Your task to perform on an android device: Play the new Ed Sheeran video on YouTube Image 0: 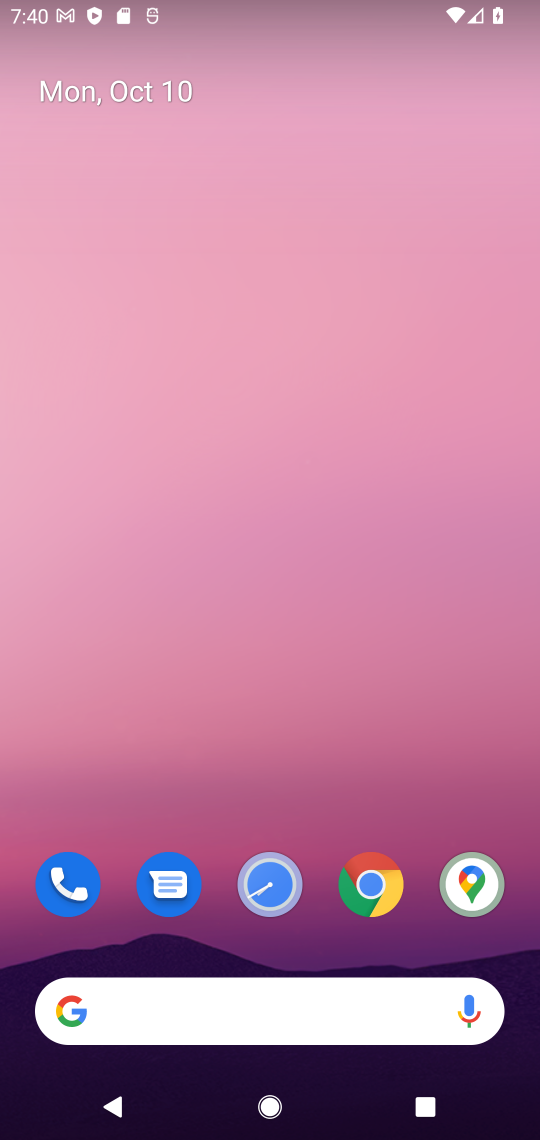
Step 0: drag from (364, 831) to (358, 9)
Your task to perform on an android device: Play the new Ed Sheeran video on YouTube Image 1: 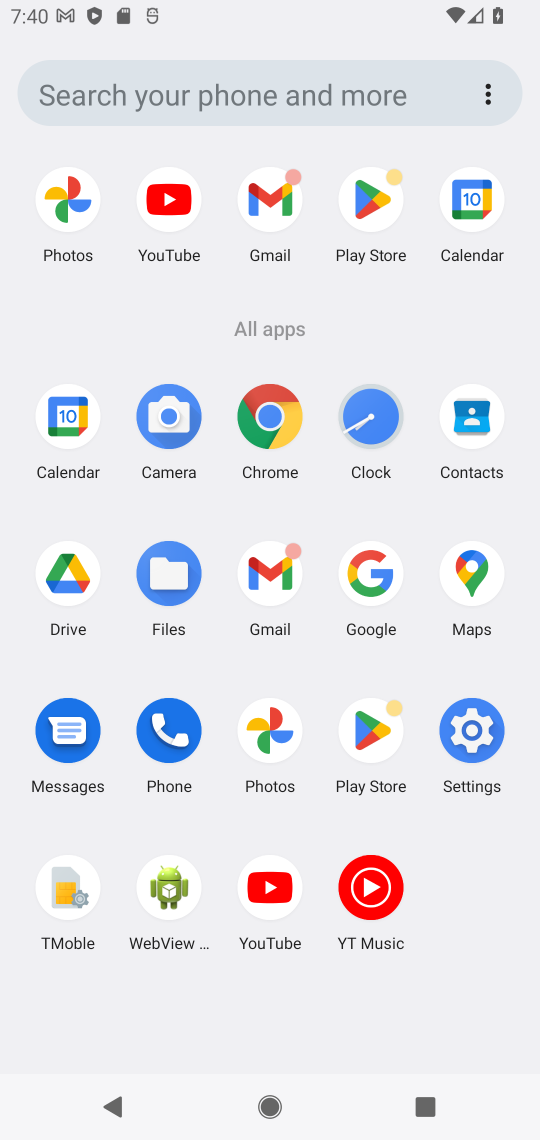
Step 1: click (280, 876)
Your task to perform on an android device: Play the new Ed Sheeran video on YouTube Image 2: 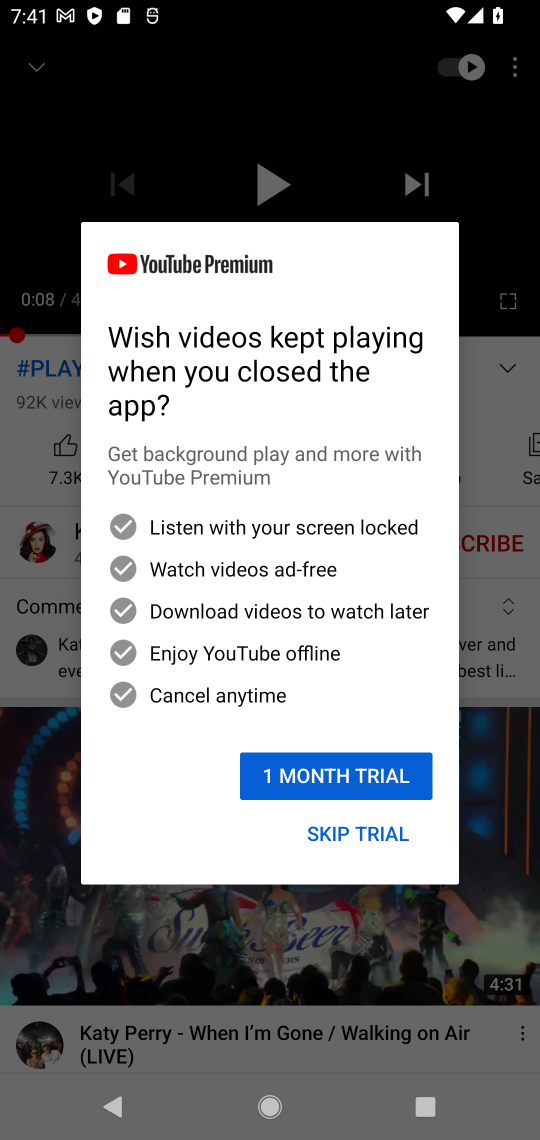
Step 2: click (378, 838)
Your task to perform on an android device: Play the new Ed Sheeran video on YouTube Image 3: 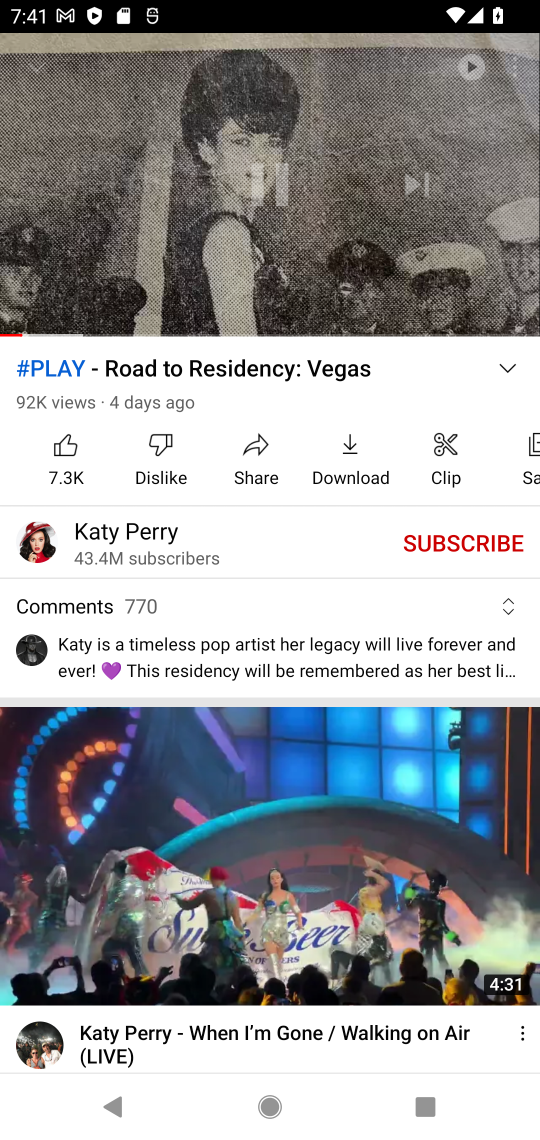
Step 3: drag from (347, 195) to (370, 788)
Your task to perform on an android device: Play the new Ed Sheeran video on YouTube Image 4: 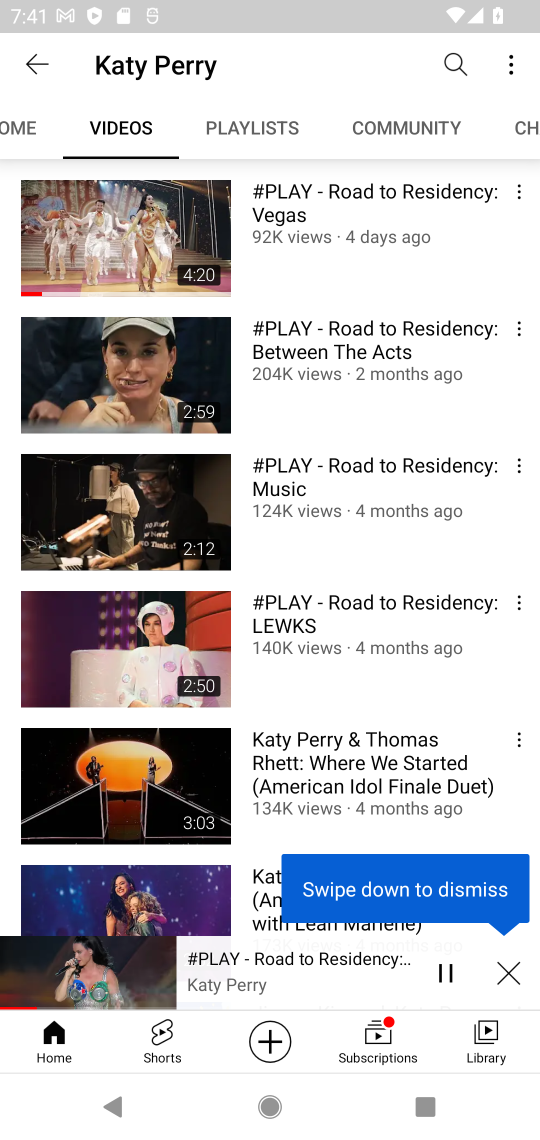
Step 4: click (513, 963)
Your task to perform on an android device: Play the new Ed Sheeran video on YouTube Image 5: 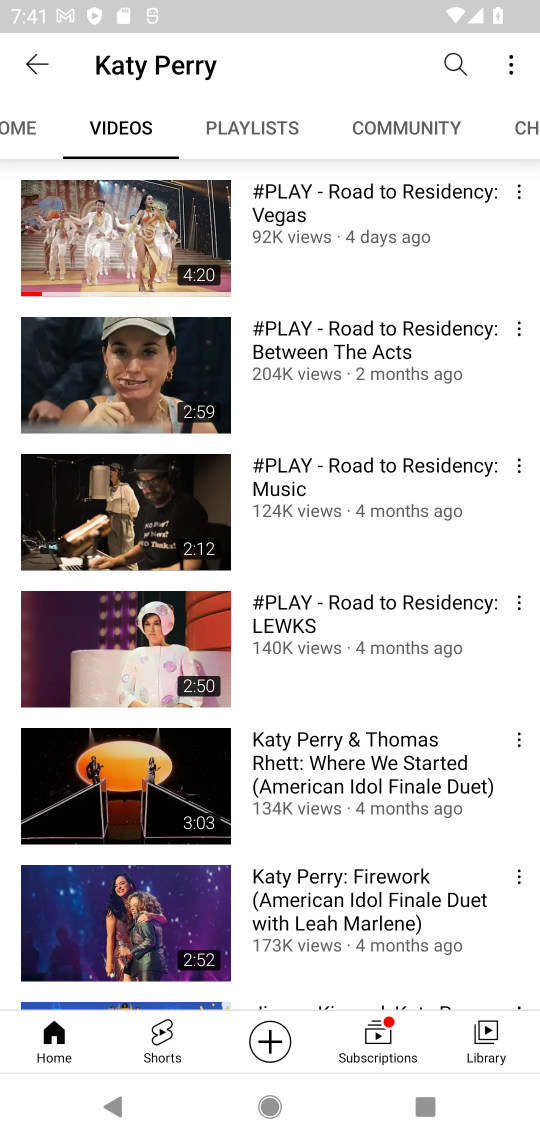
Step 5: click (451, 64)
Your task to perform on an android device: Play the new Ed Sheeran video on YouTube Image 6: 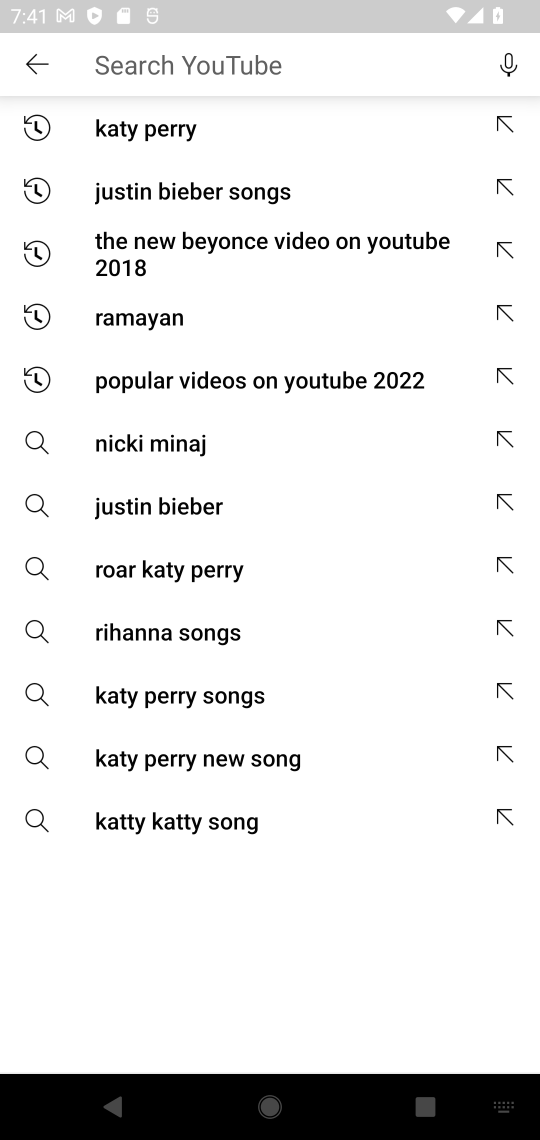
Step 6: type "ed sheeran"
Your task to perform on an android device: Play the new Ed Sheeran video on YouTube Image 7: 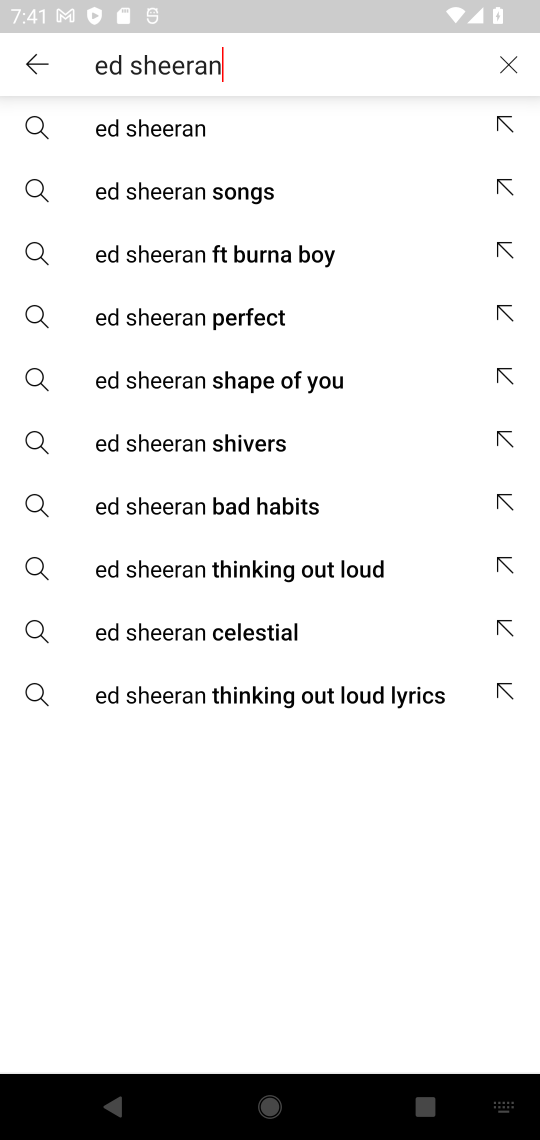
Step 7: click (200, 118)
Your task to perform on an android device: Play the new Ed Sheeran video on YouTube Image 8: 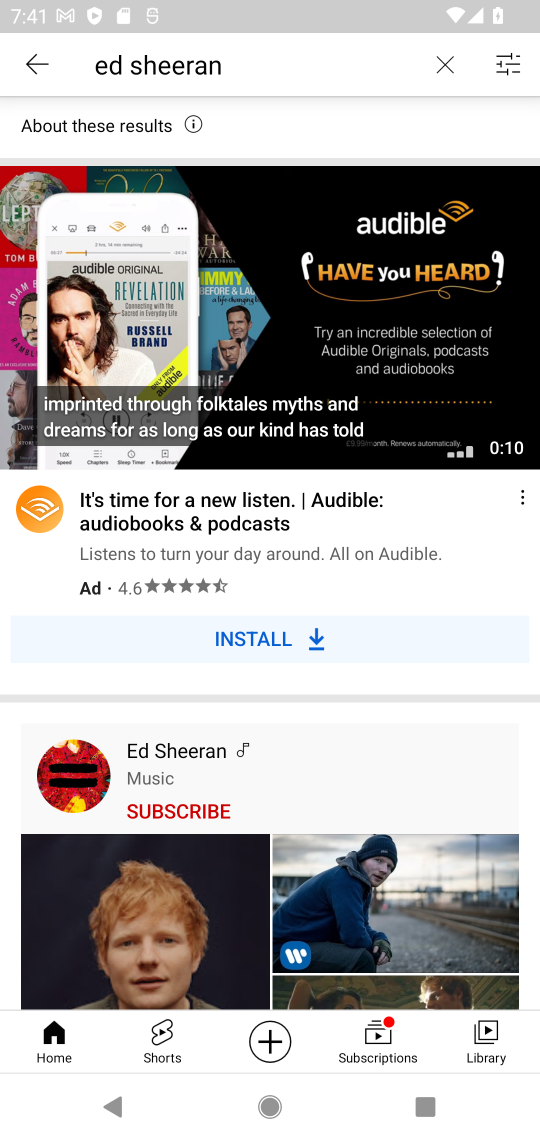
Step 8: click (334, 737)
Your task to perform on an android device: Play the new Ed Sheeran video on YouTube Image 9: 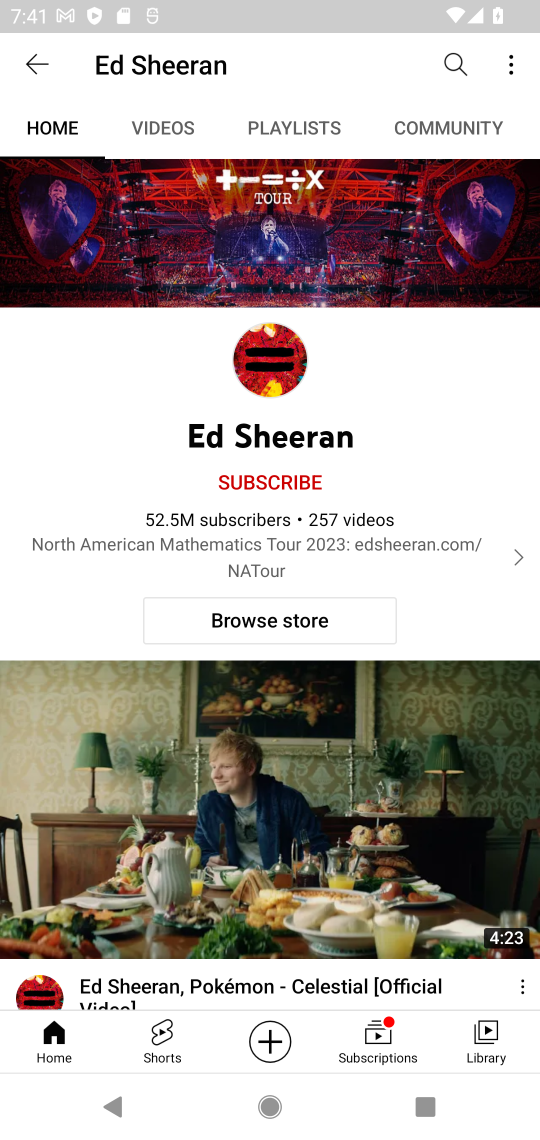
Step 9: click (164, 127)
Your task to perform on an android device: Play the new Ed Sheeran video on YouTube Image 10: 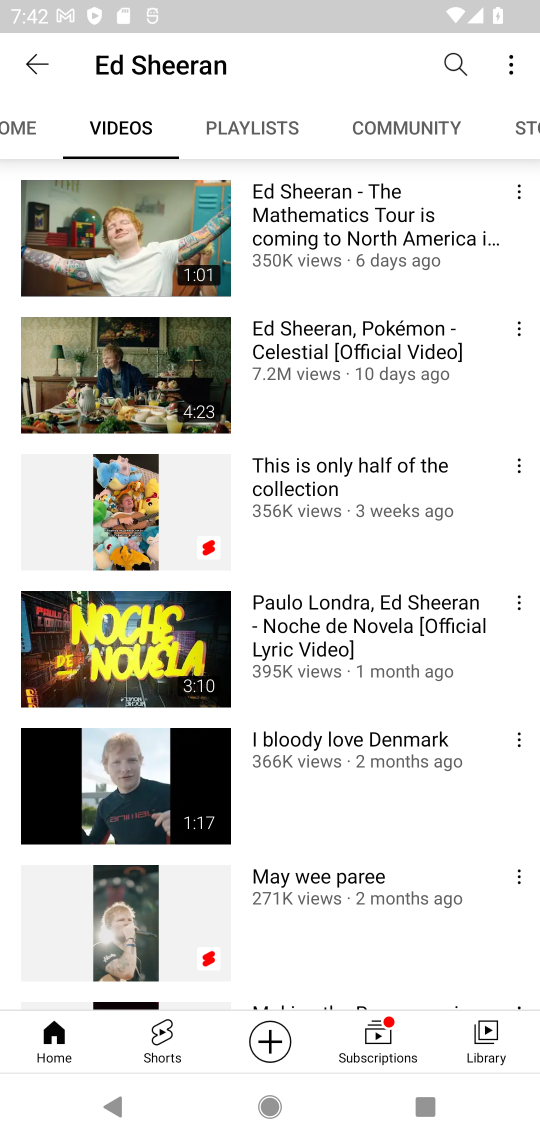
Step 10: click (436, 199)
Your task to perform on an android device: Play the new Ed Sheeran video on YouTube Image 11: 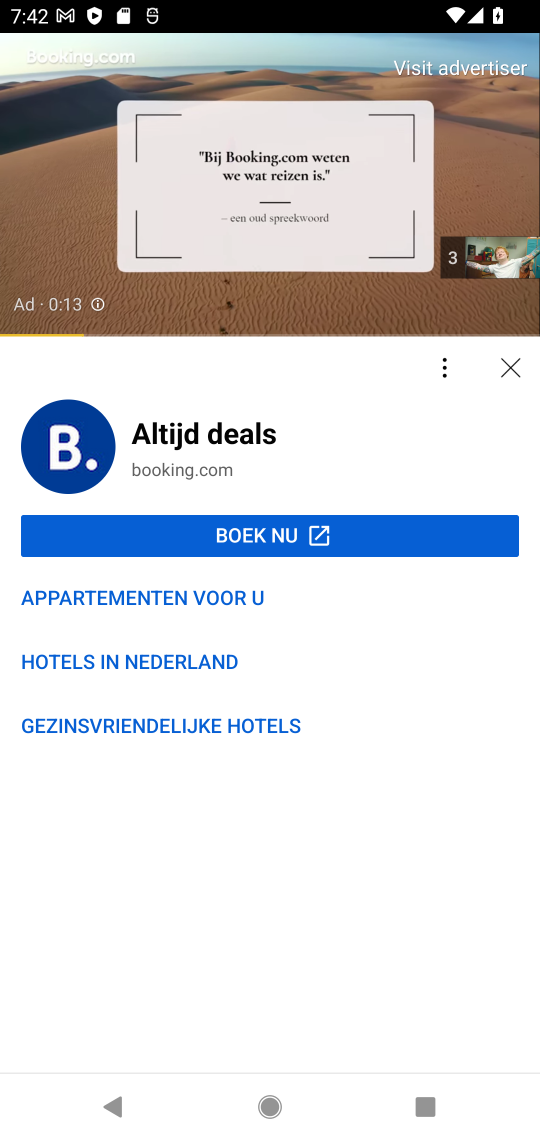
Step 11: click (522, 375)
Your task to perform on an android device: Play the new Ed Sheeran video on YouTube Image 12: 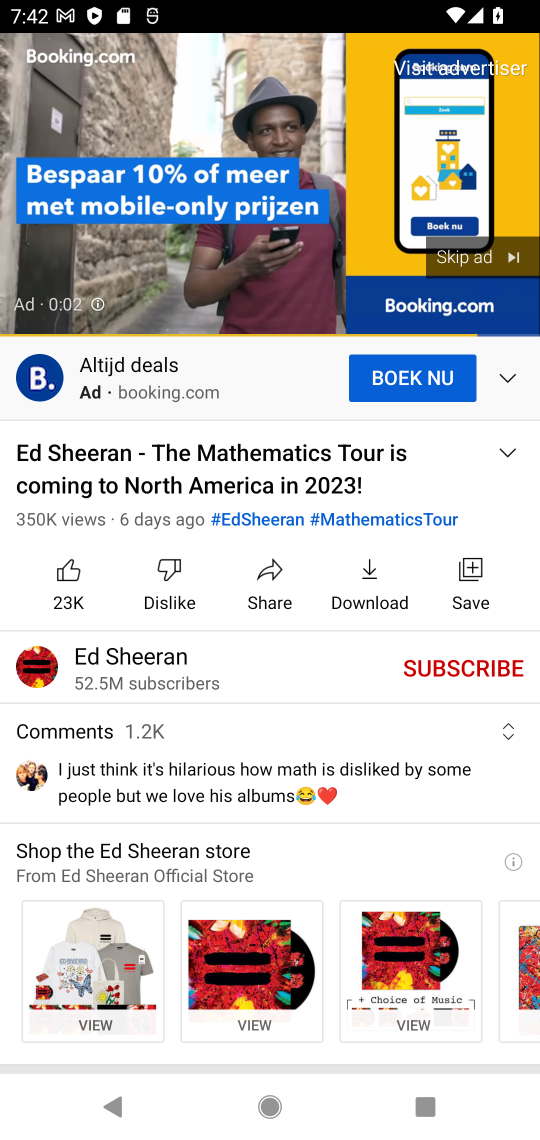
Step 12: task complete